Your task to perform on an android device: see creations saved in the google photos Image 0: 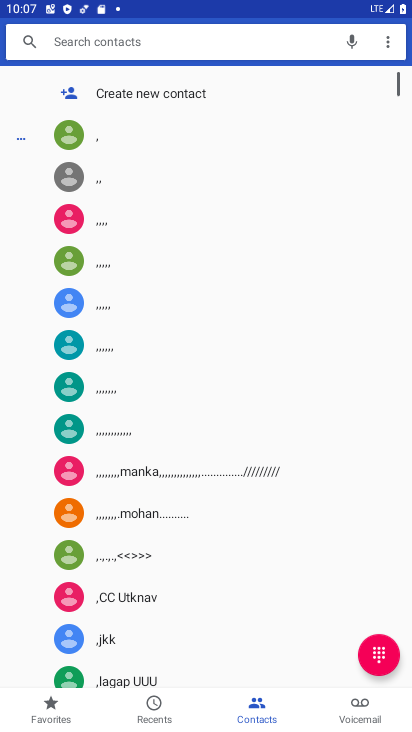
Step 0: press home button
Your task to perform on an android device: see creations saved in the google photos Image 1: 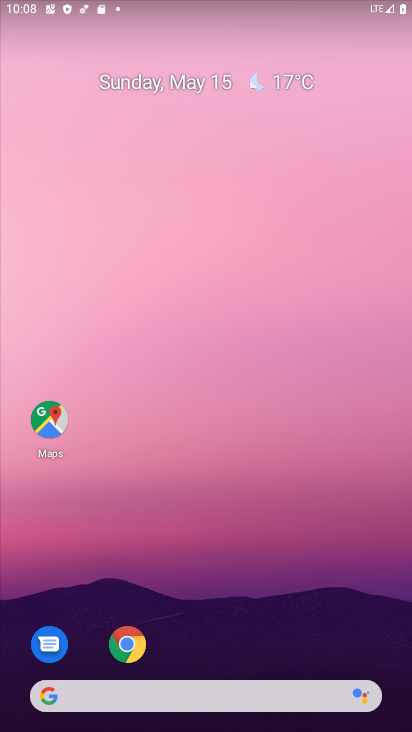
Step 1: drag from (168, 710) to (360, 143)
Your task to perform on an android device: see creations saved in the google photos Image 2: 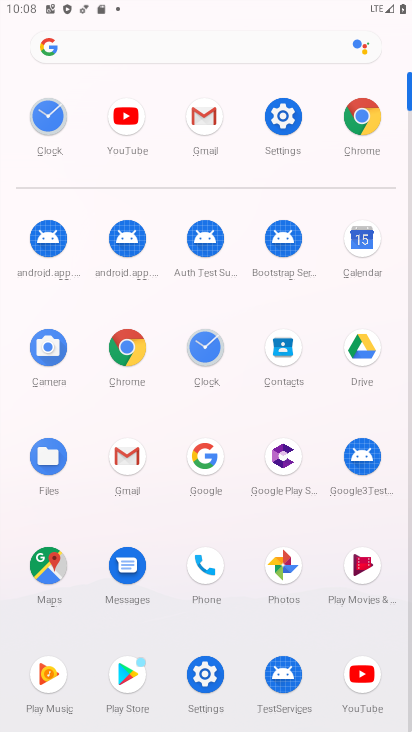
Step 2: click (261, 568)
Your task to perform on an android device: see creations saved in the google photos Image 3: 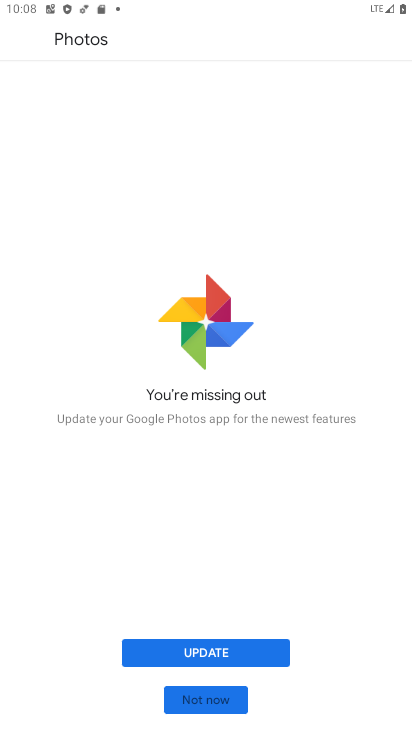
Step 3: click (195, 705)
Your task to perform on an android device: see creations saved in the google photos Image 4: 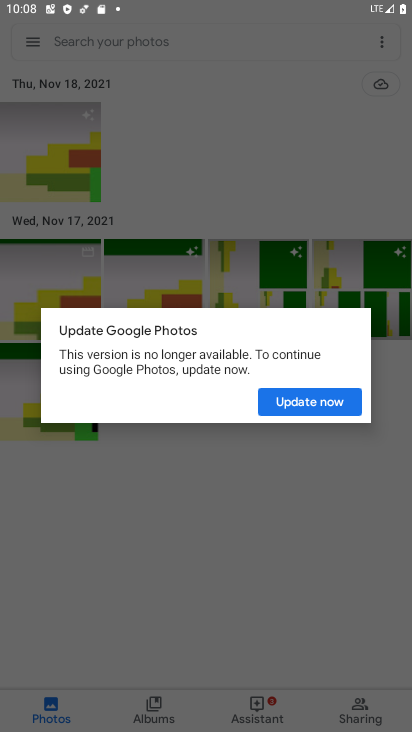
Step 4: click (336, 392)
Your task to perform on an android device: see creations saved in the google photos Image 5: 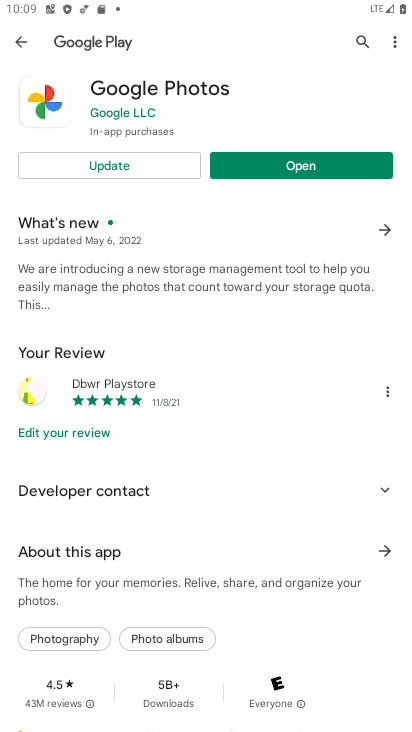
Step 5: click (318, 157)
Your task to perform on an android device: see creations saved in the google photos Image 6: 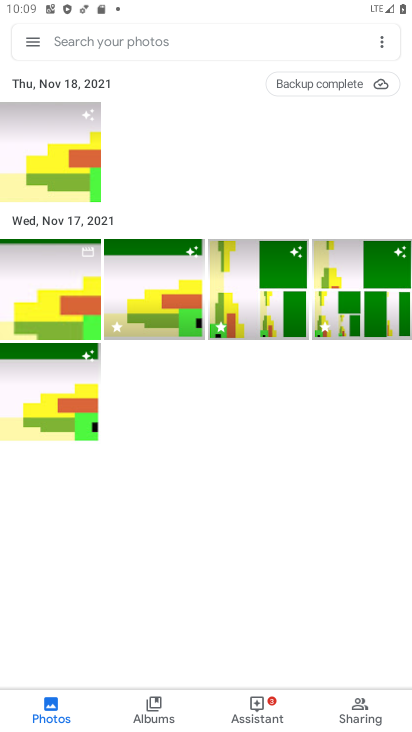
Step 6: click (63, 159)
Your task to perform on an android device: see creations saved in the google photos Image 7: 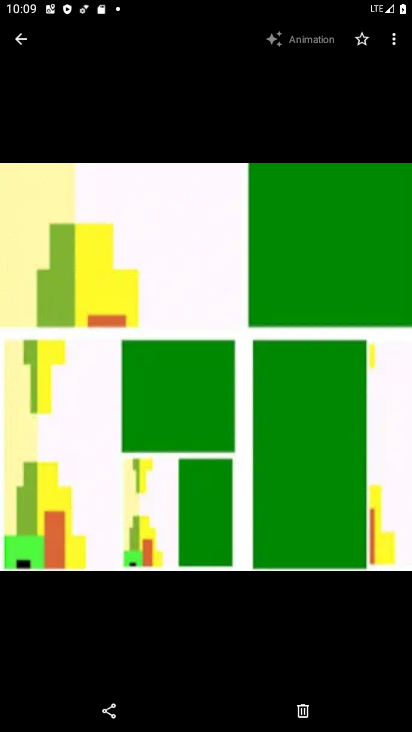
Step 7: click (393, 40)
Your task to perform on an android device: see creations saved in the google photos Image 8: 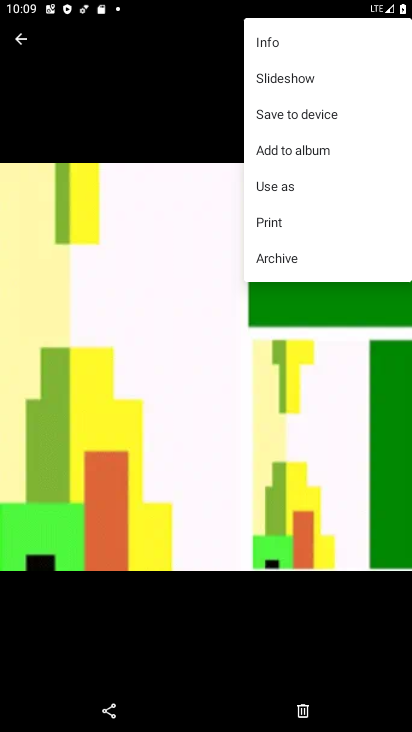
Step 8: click (308, 115)
Your task to perform on an android device: see creations saved in the google photos Image 9: 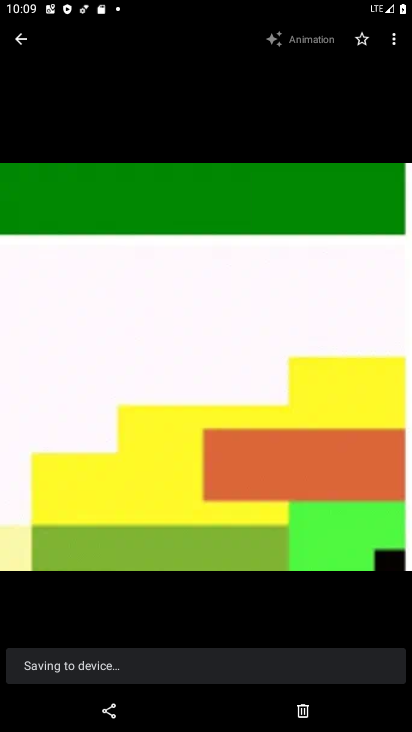
Step 9: task complete